Your task to perform on an android device: set the timer Image 0: 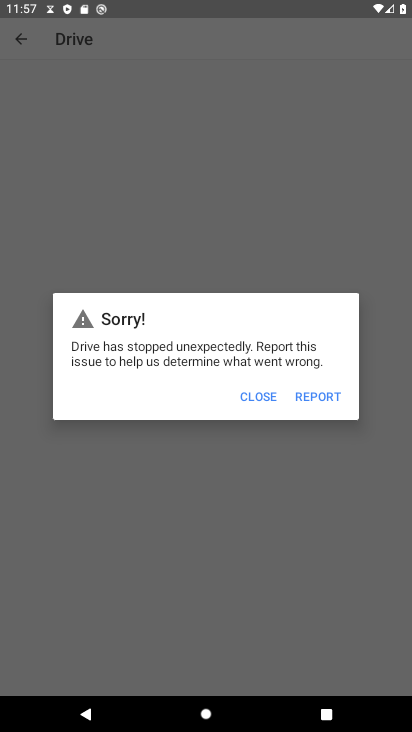
Step 0: press home button
Your task to perform on an android device: set the timer Image 1: 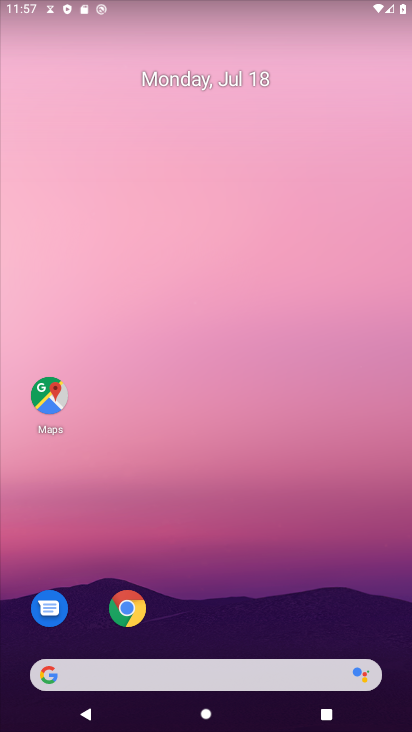
Step 1: drag from (319, 605) to (269, 49)
Your task to perform on an android device: set the timer Image 2: 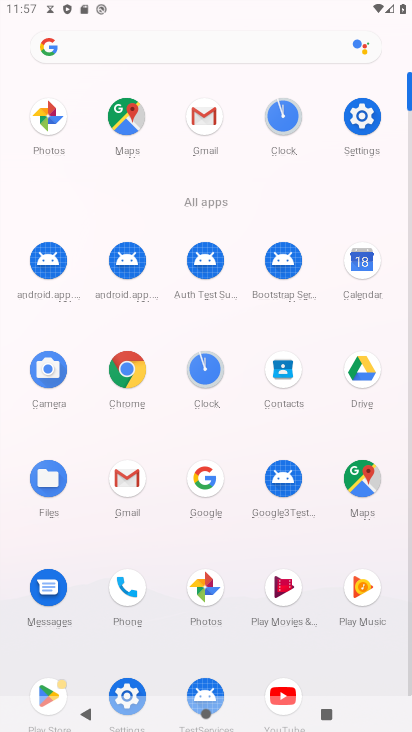
Step 2: click (287, 127)
Your task to perform on an android device: set the timer Image 3: 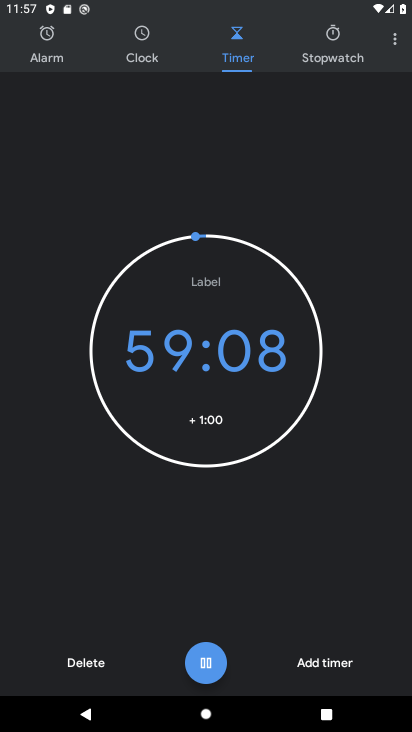
Step 3: task complete